Your task to perform on an android device: delete a single message in the gmail app Image 0: 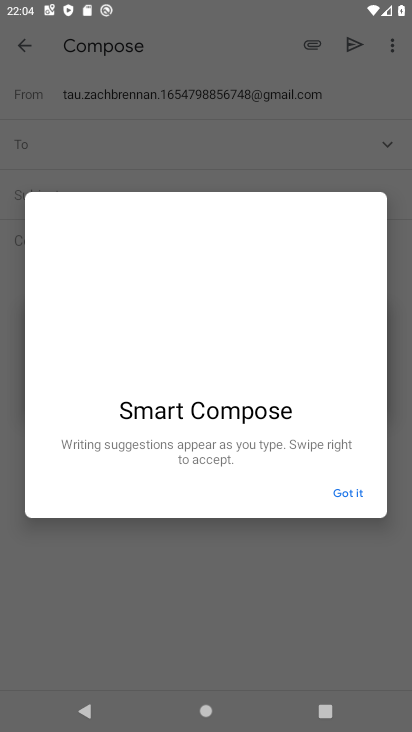
Step 0: press home button
Your task to perform on an android device: delete a single message in the gmail app Image 1: 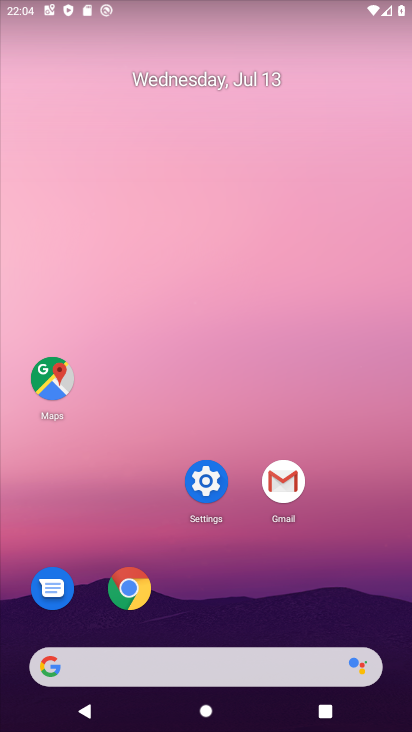
Step 1: click (289, 480)
Your task to perform on an android device: delete a single message in the gmail app Image 2: 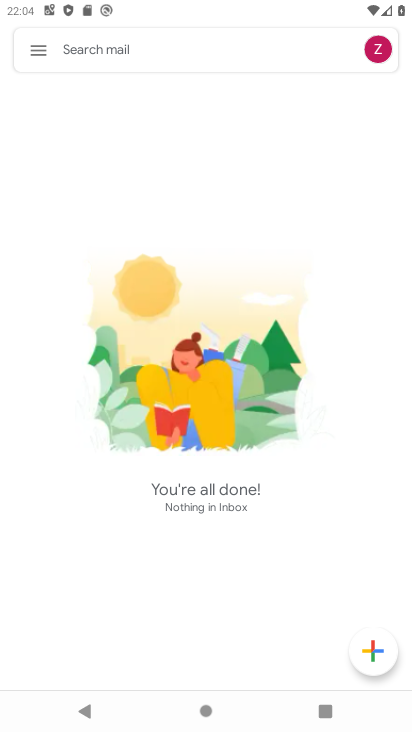
Step 2: task complete